Your task to perform on an android device: visit the assistant section in the google photos Image 0: 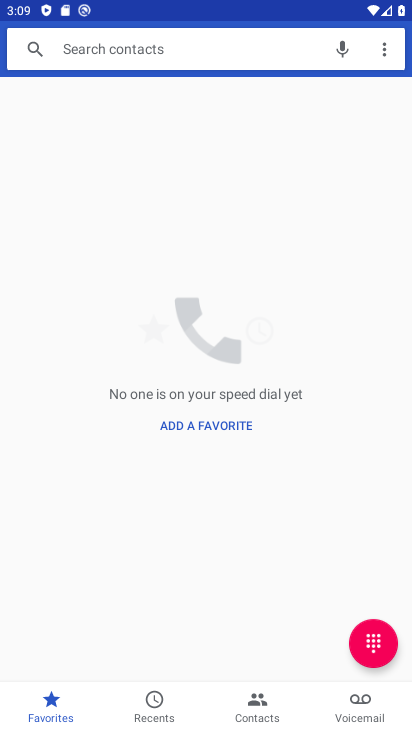
Step 0: press home button
Your task to perform on an android device: visit the assistant section in the google photos Image 1: 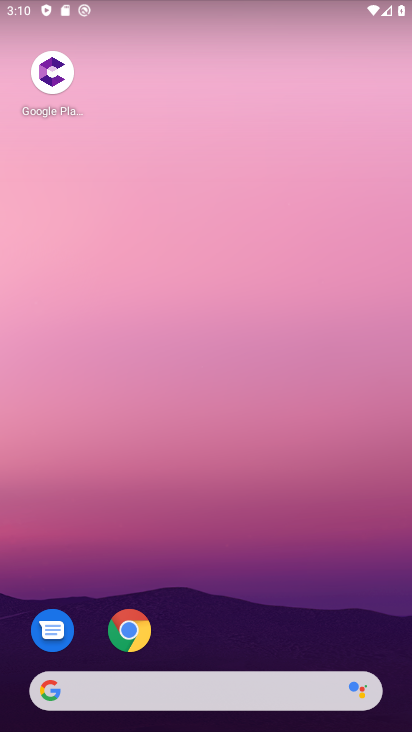
Step 1: drag from (206, 607) to (223, 38)
Your task to perform on an android device: visit the assistant section in the google photos Image 2: 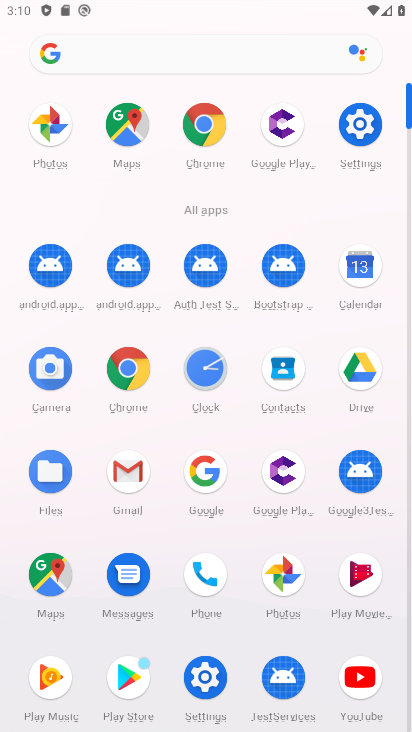
Step 2: click (48, 125)
Your task to perform on an android device: visit the assistant section in the google photos Image 3: 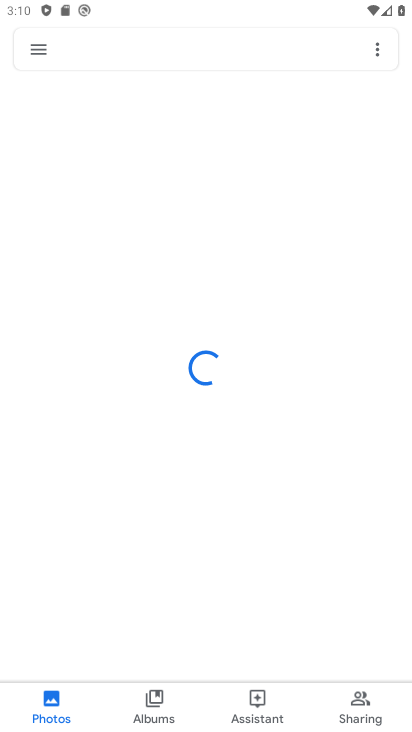
Step 3: click (260, 698)
Your task to perform on an android device: visit the assistant section in the google photos Image 4: 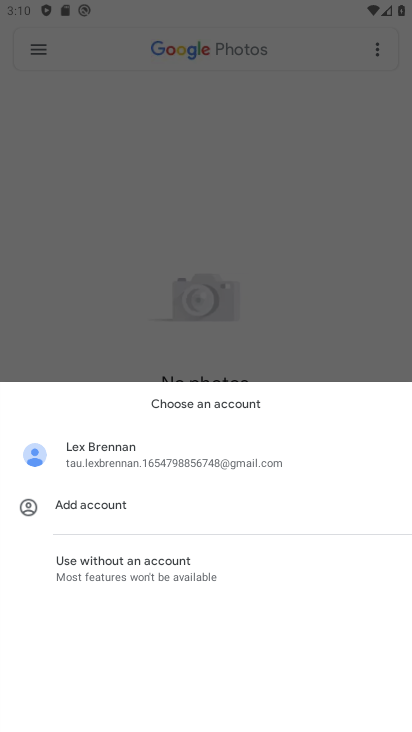
Step 4: click (303, 336)
Your task to perform on an android device: visit the assistant section in the google photos Image 5: 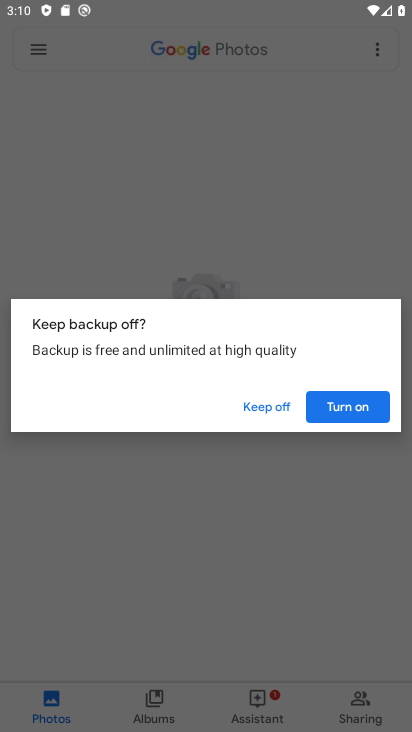
Step 5: click (303, 336)
Your task to perform on an android device: visit the assistant section in the google photos Image 6: 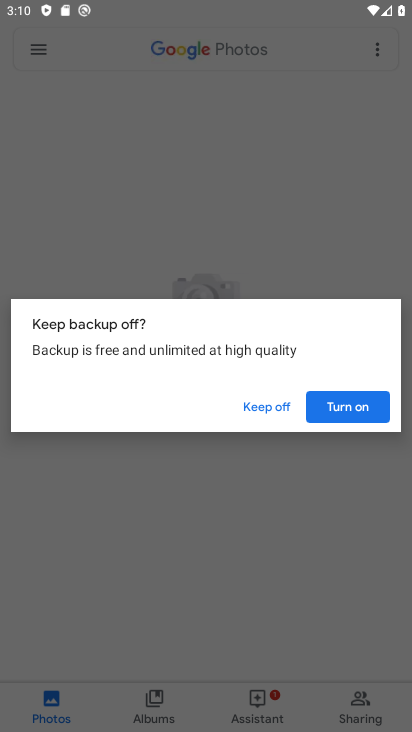
Step 6: click (262, 403)
Your task to perform on an android device: visit the assistant section in the google photos Image 7: 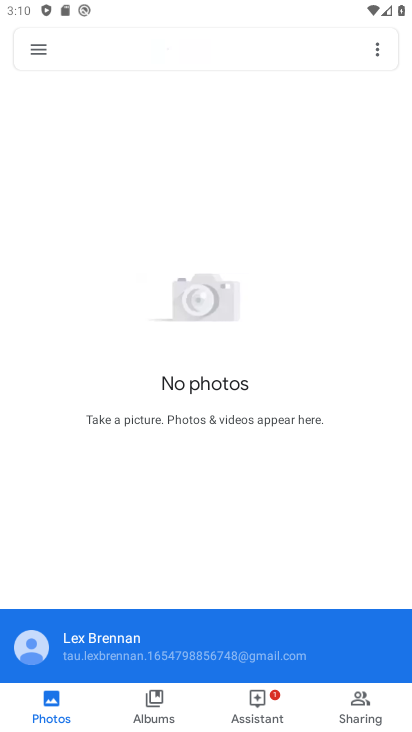
Step 7: click (259, 700)
Your task to perform on an android device: visit the assistant section in the google photos Image 8: 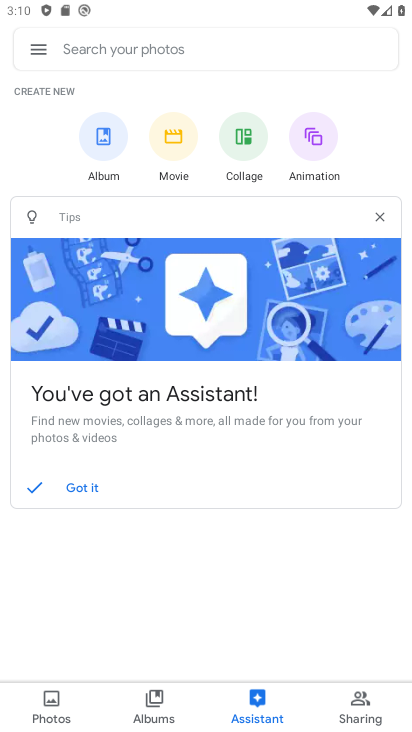
Step 8: task complete